Your task to perform on an android device: Open Google Image 0: 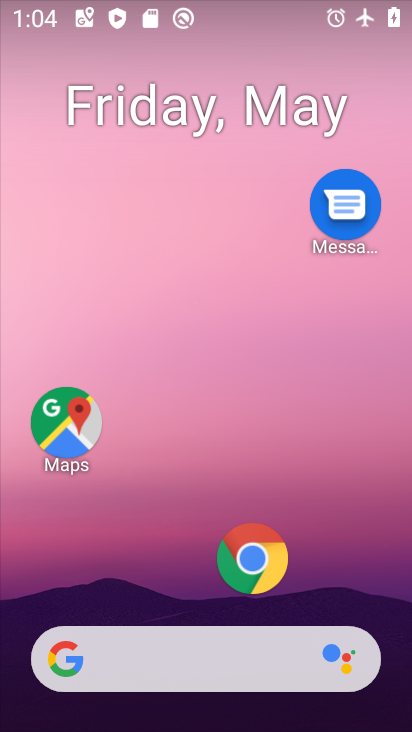
Step 0: drag from (136, 635) to (272, 38)
Your task to perform on an android device: Open Google Image 1: 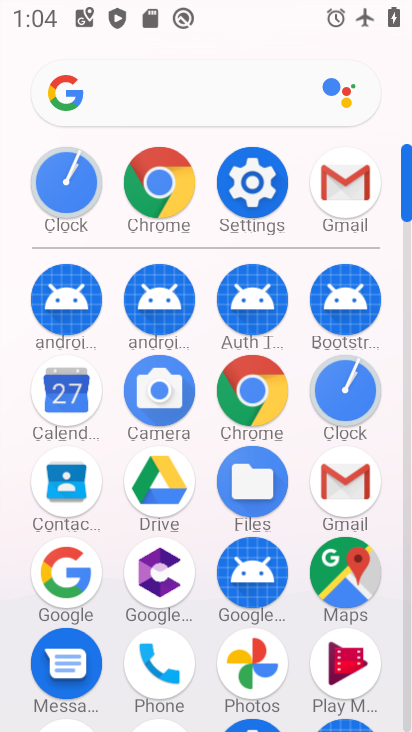
Step 1: click (73, 582)
Your task to perform on an android device: Open Google Image 2: 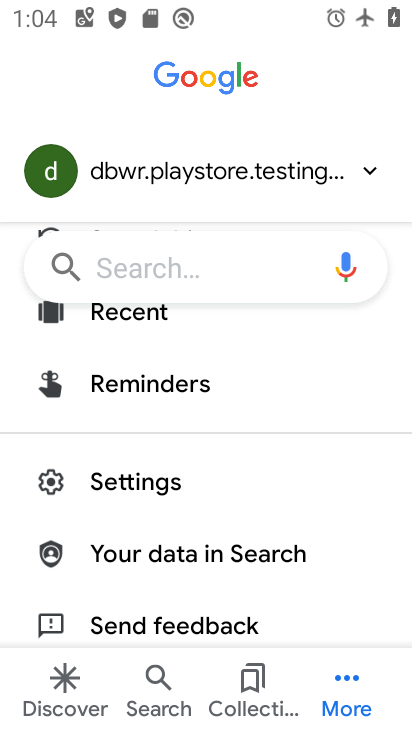
Step 2: task complete